Your task to perform on an android device: install app "Lyft - Rideshare, Bikes, Scooters & Transit" Image 0: 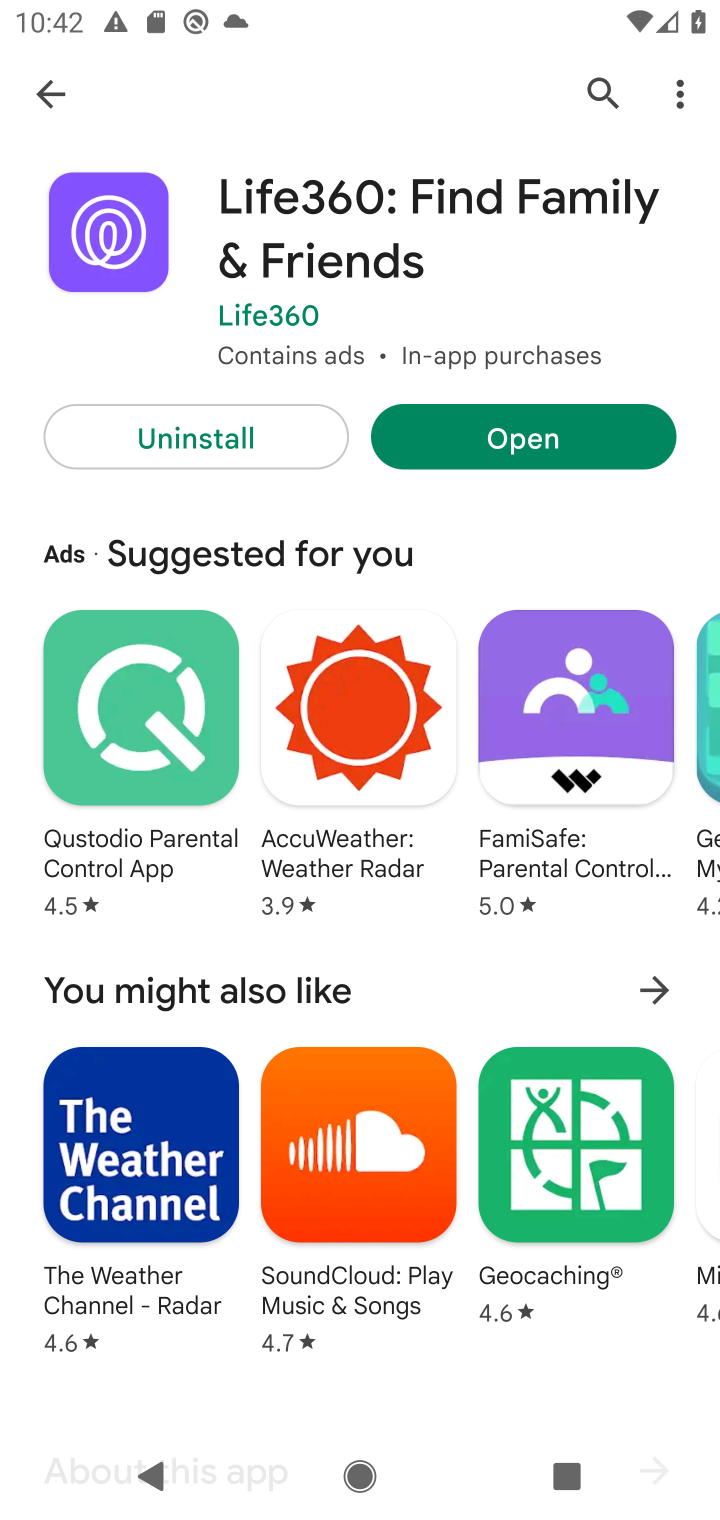
Step 0: press home button
Your task to perform on an android device: install app "Lyft - Rideshare, Bikes, Scooters & Transit" Image 1: 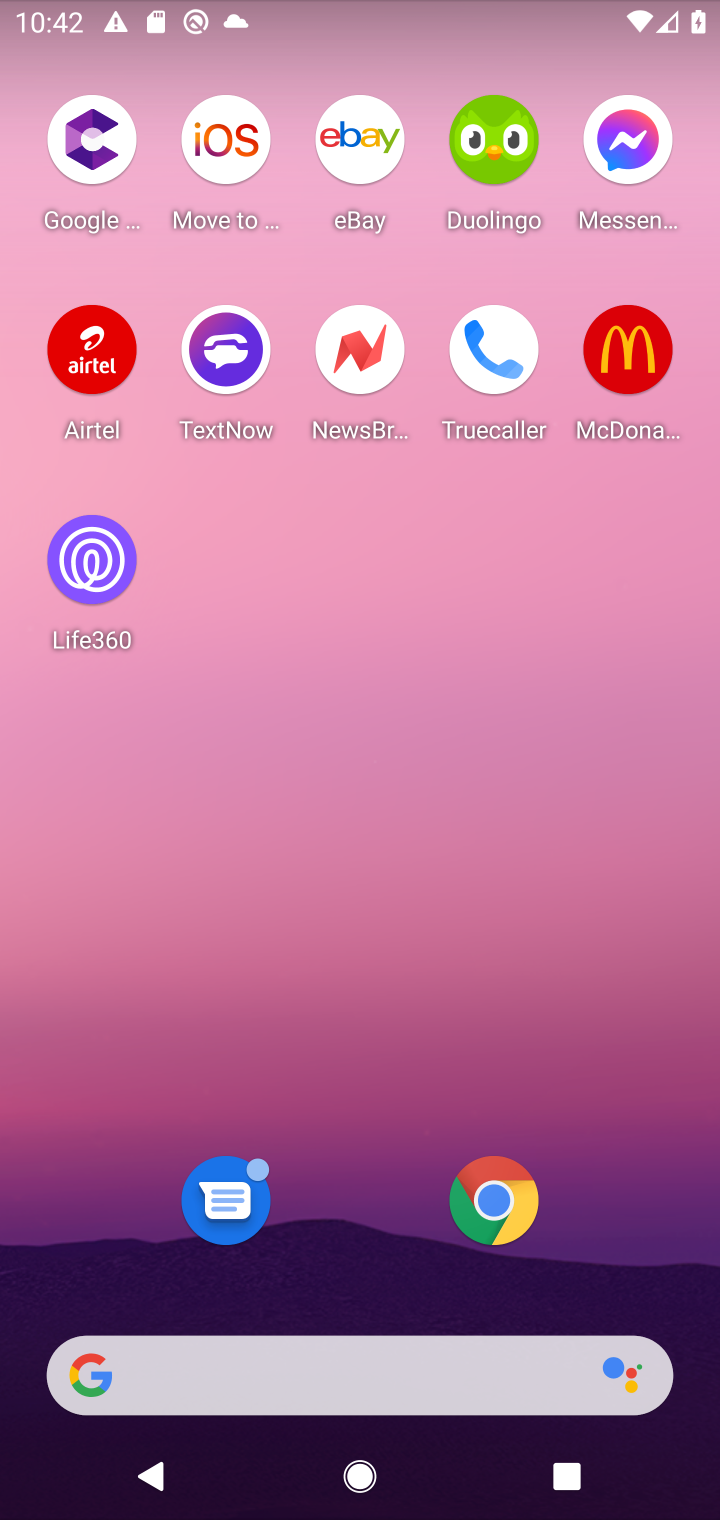
Step 1: press home button
Your task to perform on an android device: install app "Lyft - Rideshare, Bikes, Scooters & Transit" Image 2: 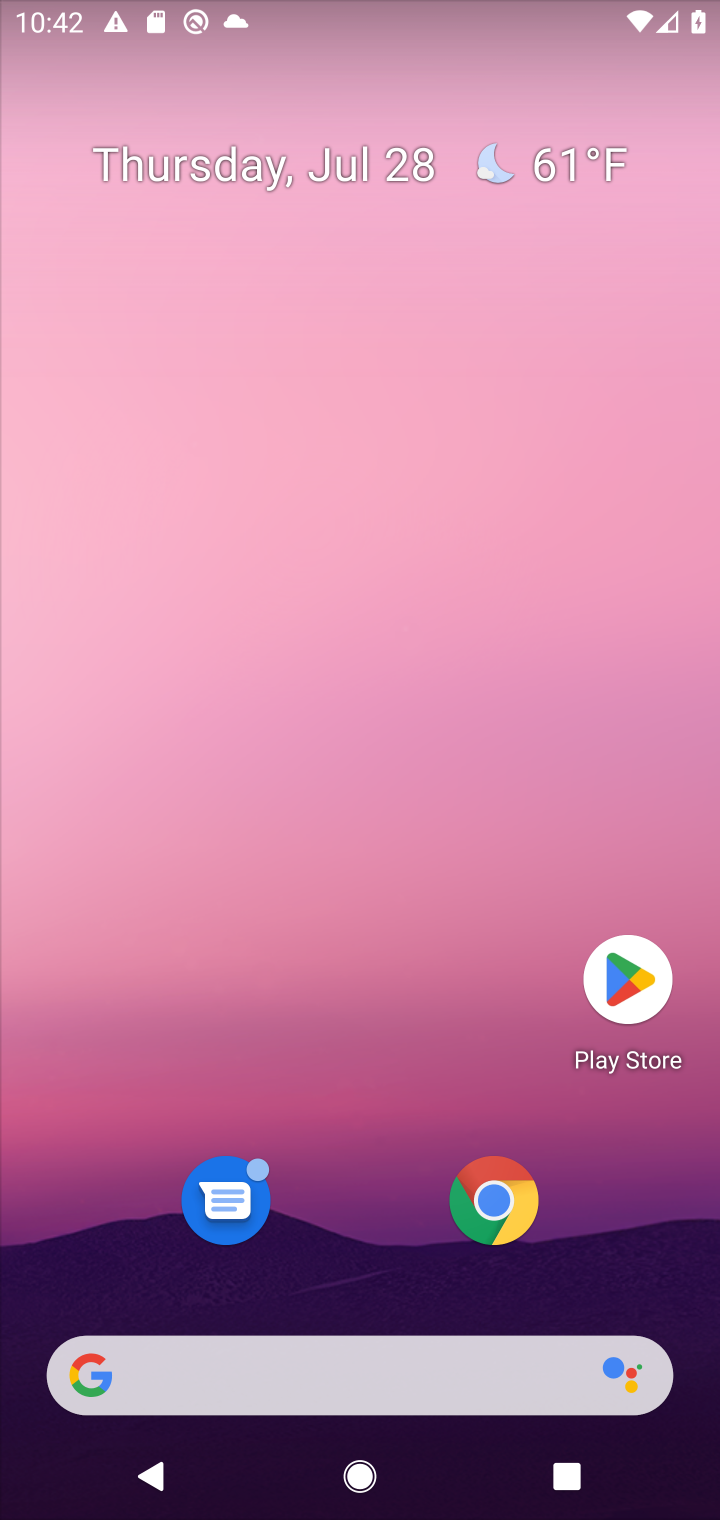
Step 2: click (635, 978)
Your task to perform on an android device: install app "Lyft - Rideshare, Bikes, Scooters & Transit" Image 3: 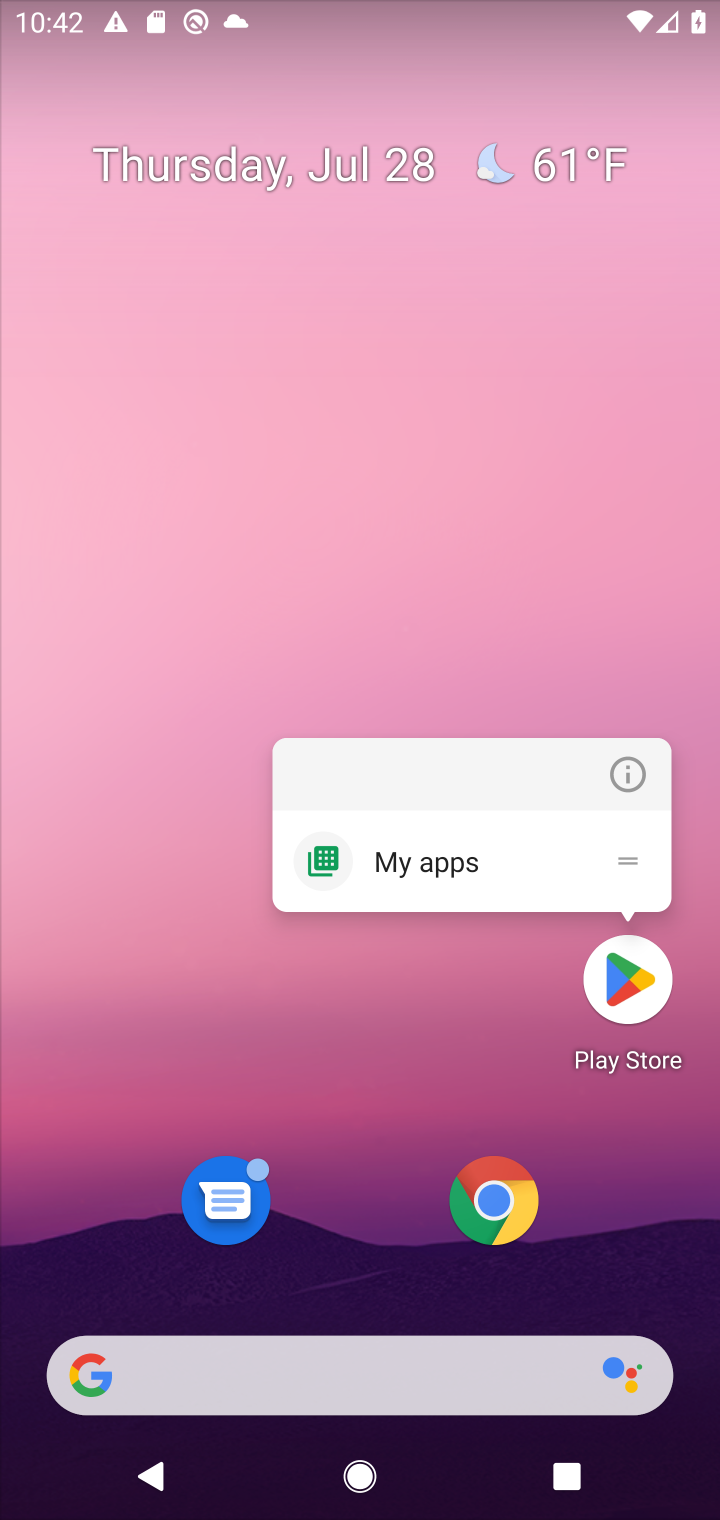
Step 3: click (635, 984)
Your task to perform on an android device: install app "Lyft - Rideshare, Bikes, Scooters & Transit" Image 4: 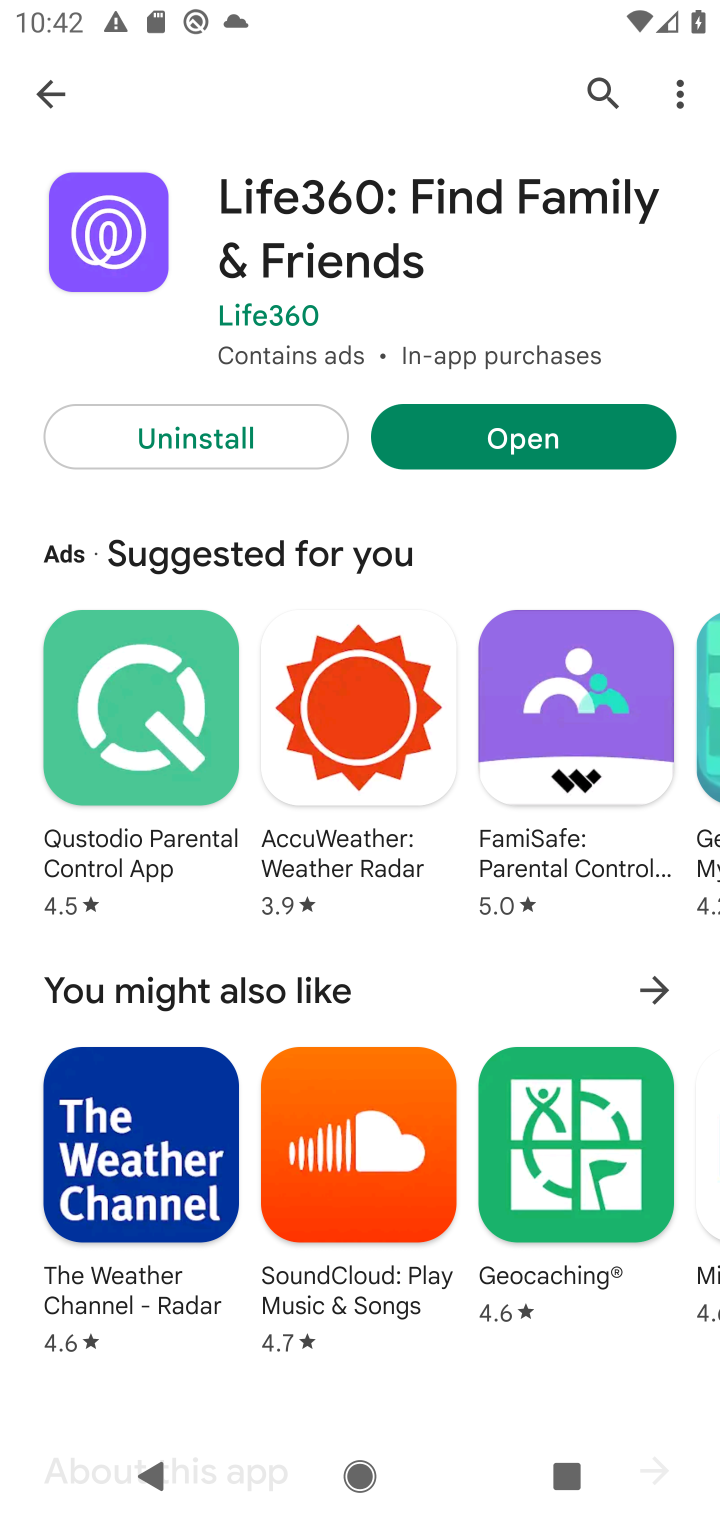
Step 4: click (46, 93)
Your task to perform on an android device: install app "Lyft - Rideshare, Bikes, Scooters & Transit" Image 5: 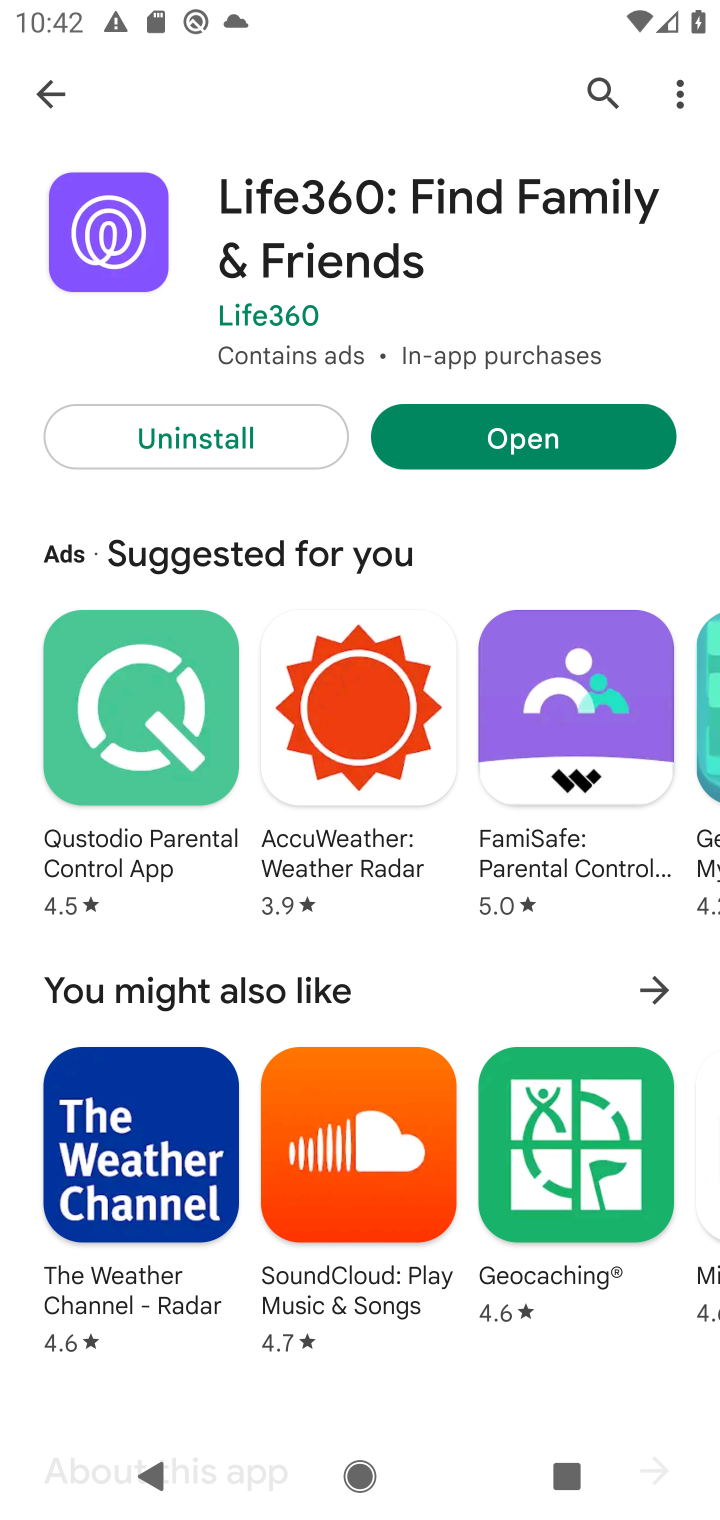
Step 5: click (591, 85)
Your task to perform on an android device: install app "Lyft - Rideshare, Bikes, Scooters & Transit" Image 6: 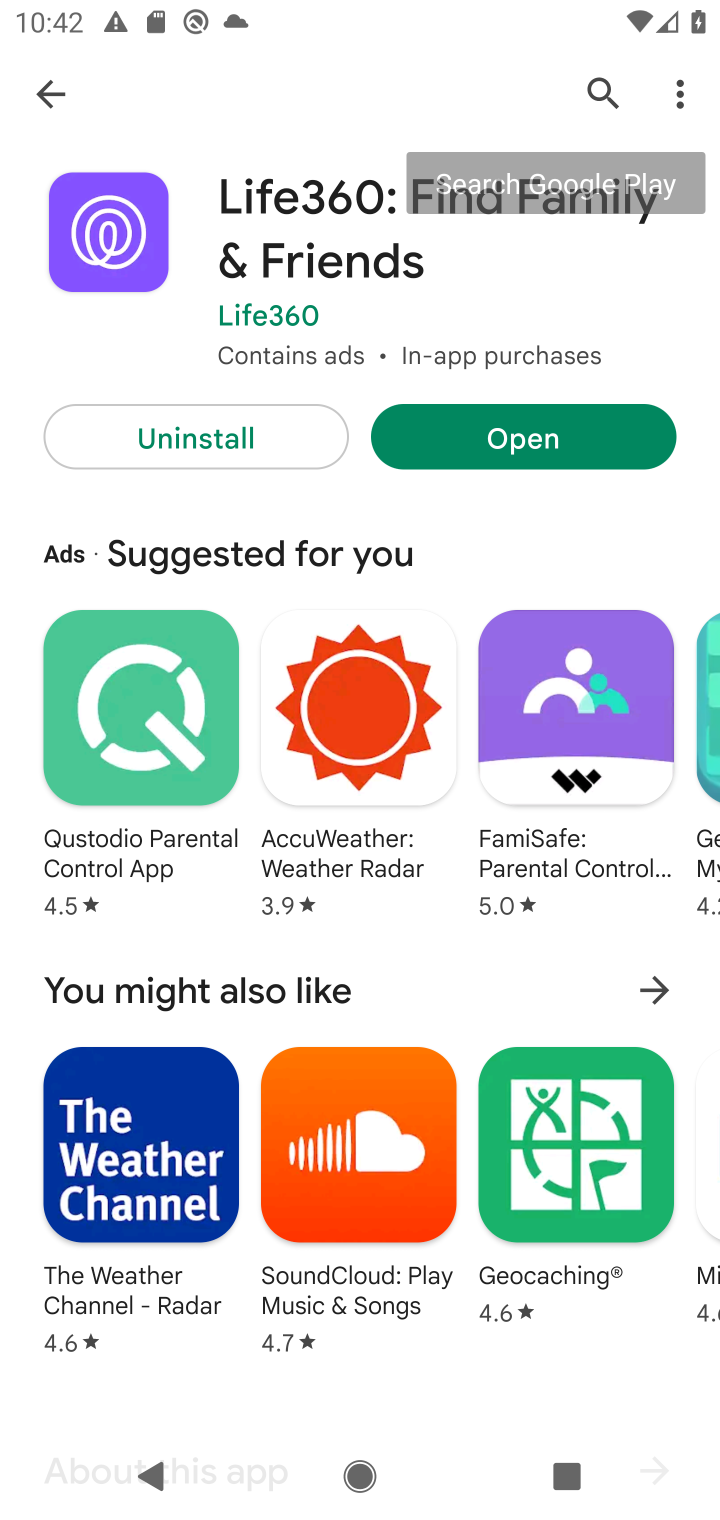
Step 6: click (603, 78)
Your task to perform on an android device: install app "Lyft - Rideshare, Bikes, Scooters & Transit" Image 7: 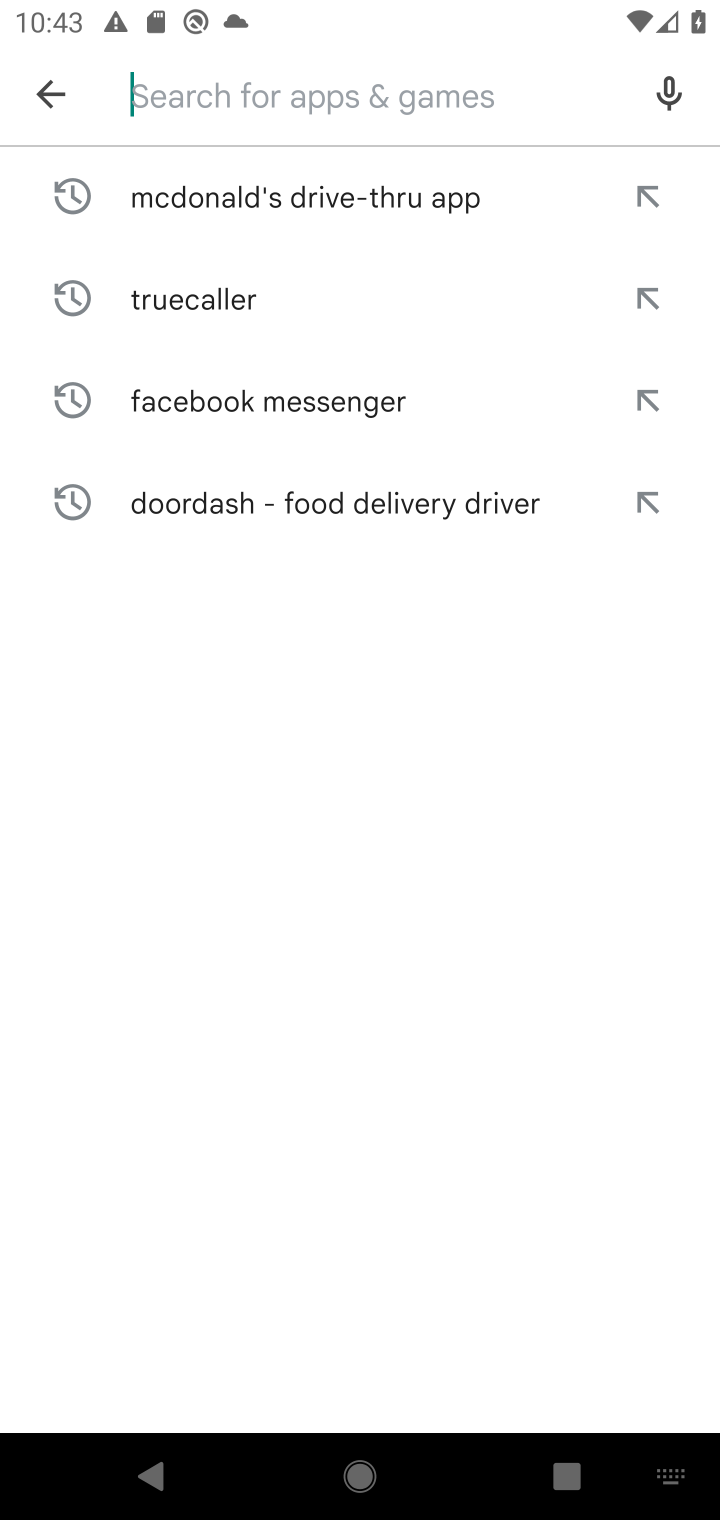
Step 7: type "Lyft - Rideshare, Bikes, Scooters & Transit"
Your task to perform on an android device: install app "Lyft - Rideshare, Bikes, Scooters & Transit" Image 8: 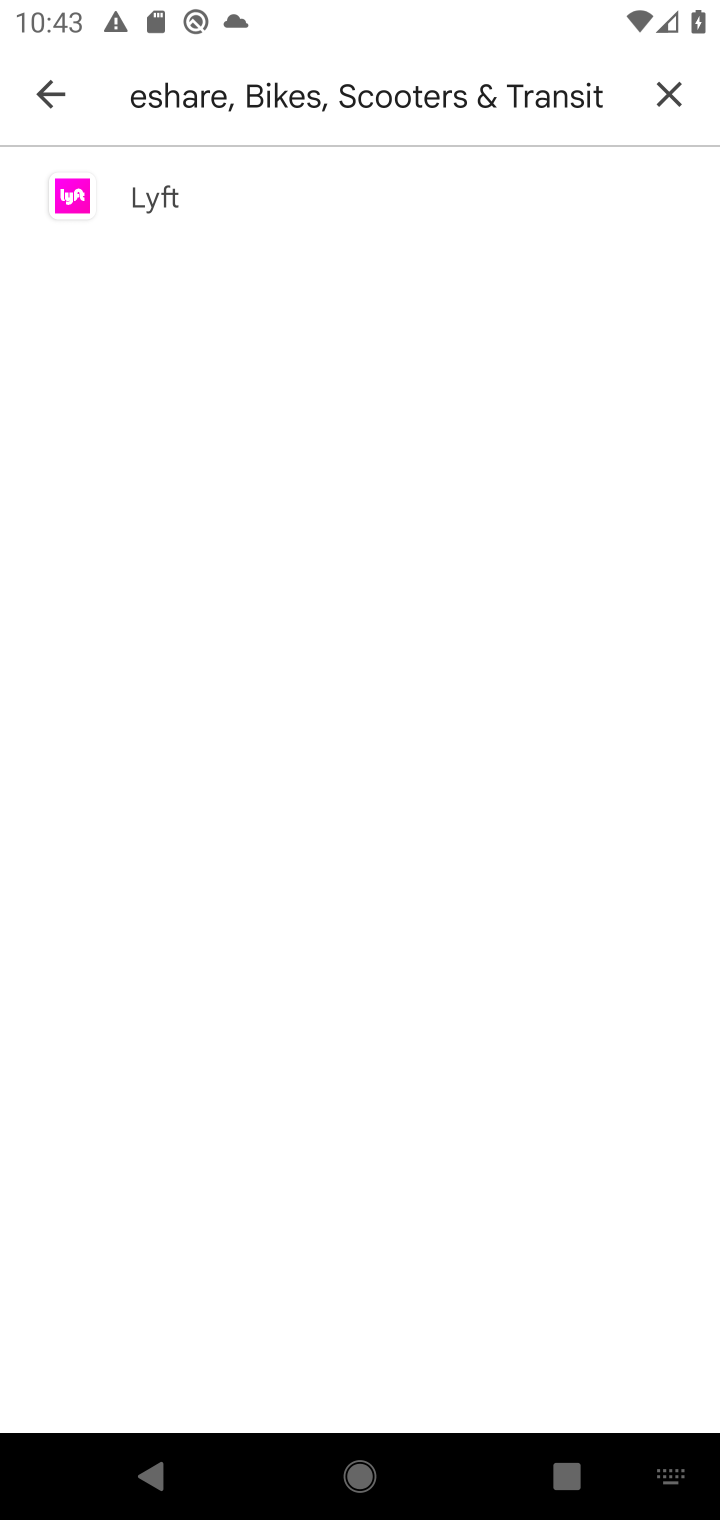
Step 8: click (144, 189)
Your task to perform on an android device: install app "Lyft - Rideshare, Bikes, Scooters & Transit" Image 9: 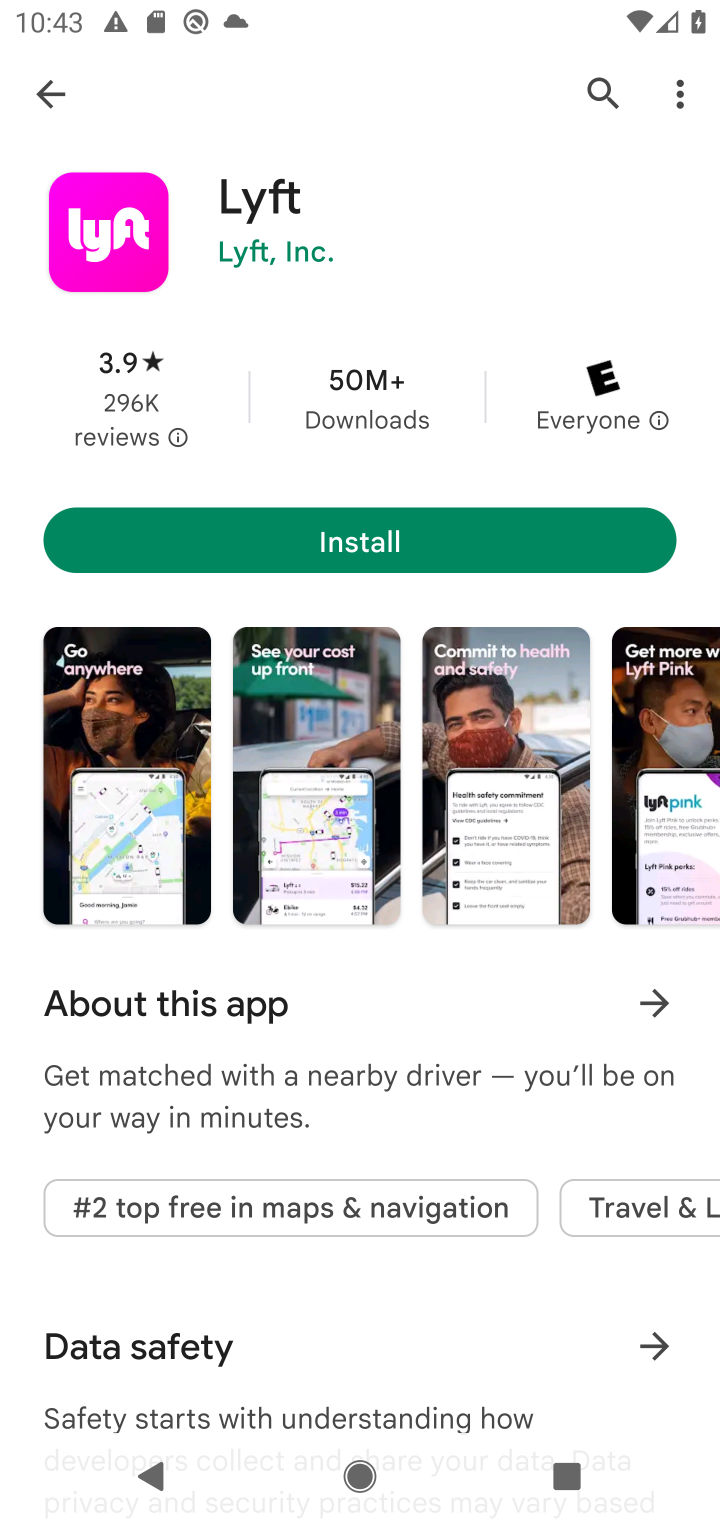
Step 9: click (375, 540)
Your task to perform on an android device: install app "Lyft - Rideshare, Bikes, Scooters & Transit" Image 10: 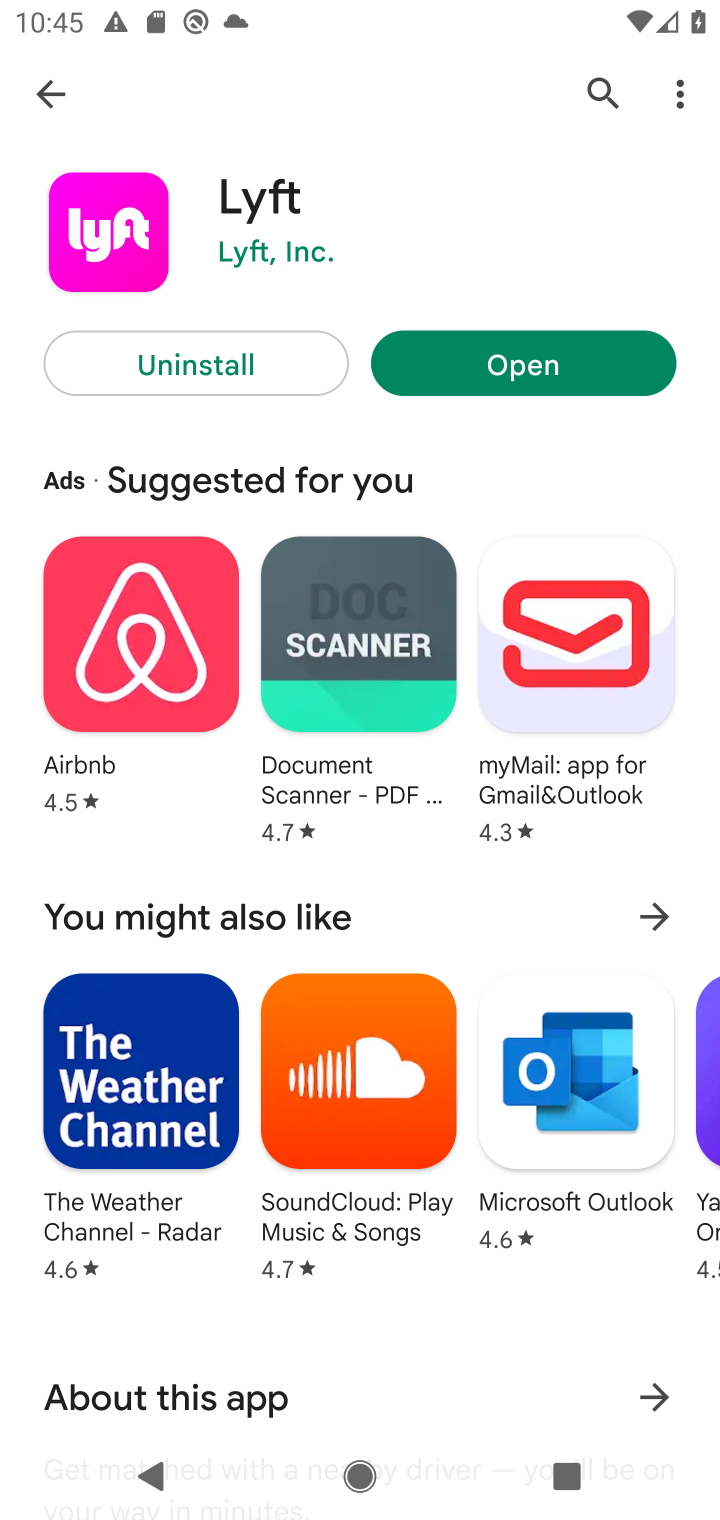
Step 10: task complete